Your task to perform on an android device: turn pop-ups off in chrome Image 0: 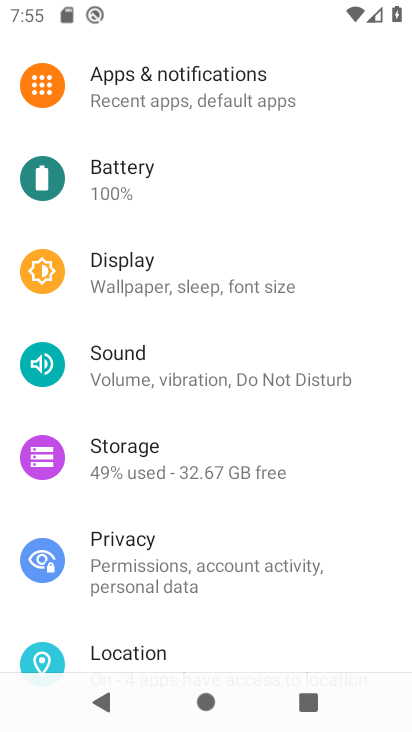
Step 0: press home button
Your task to perform on an android device: turn pop-ups off in chrome Image 1: 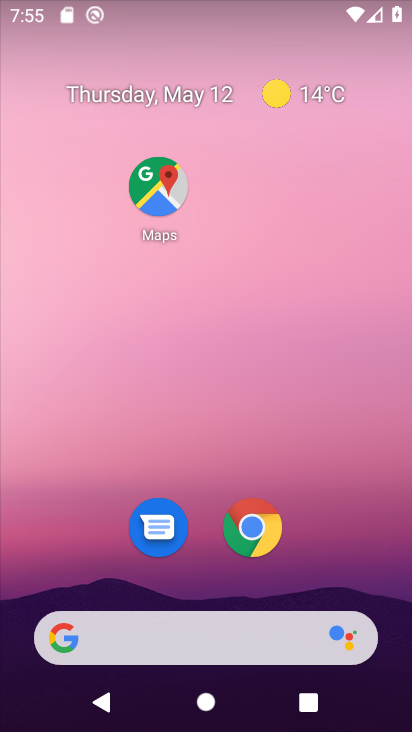
Step 1: click (268, 549)
Your task to perform on an android device: turn pop-ups off in chrome Image 2: 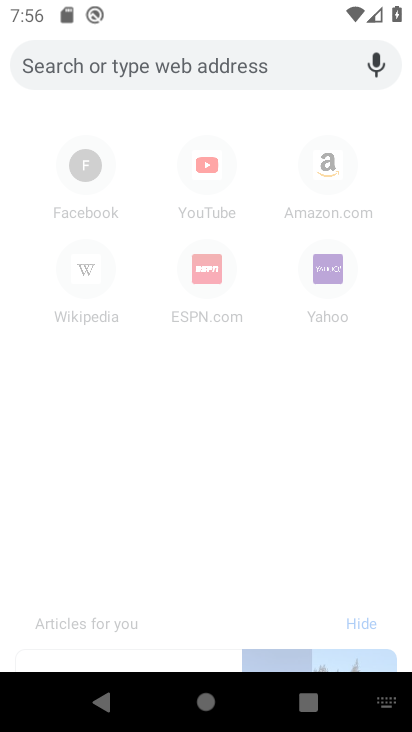
Step 2: press back button
Your task to perform on an android device: turn pop-ups off in chrome Image 3: 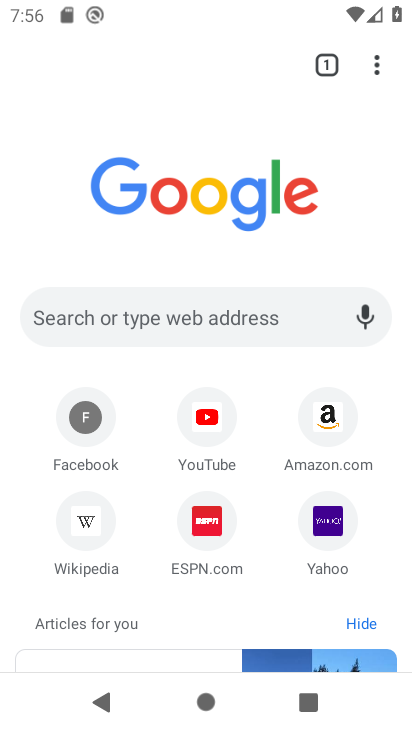
Step 3: drag from (373, 71) to (214, 551)
Your task to perform on an android device: turn pop-ups off in chrome Image 4: 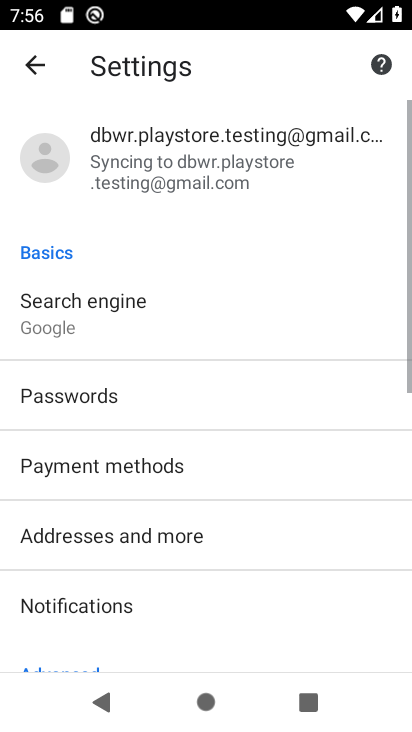
Step 4: drag from (260, 576) to (280, 249)
Your task to perform on an android device: turn pop-ups off in chrome Image 5: 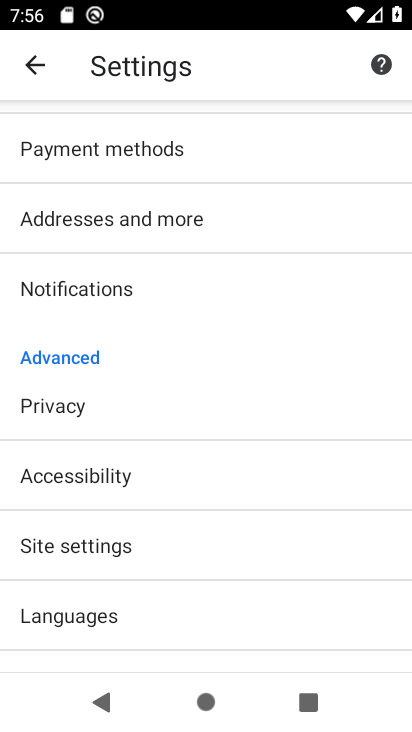
Step 5: click (142, 549)
Your task to perform on an android device: turn pop-ups off in chrome Image 6: 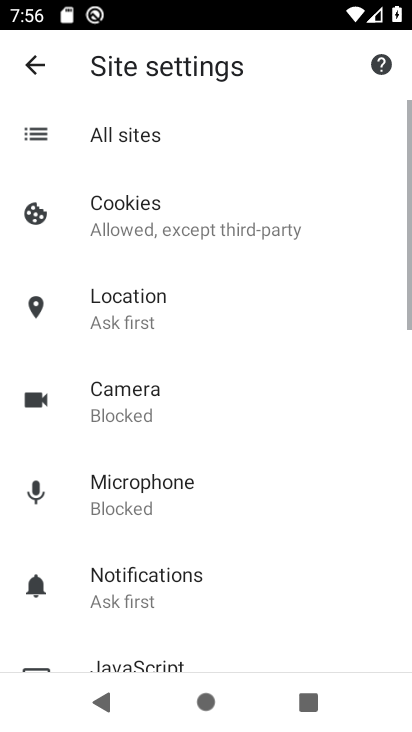
Step 6: drag from (227, 615) to (310, 262)
Your task to perform on an android device: turn pop-ups off in chrome Image 7: 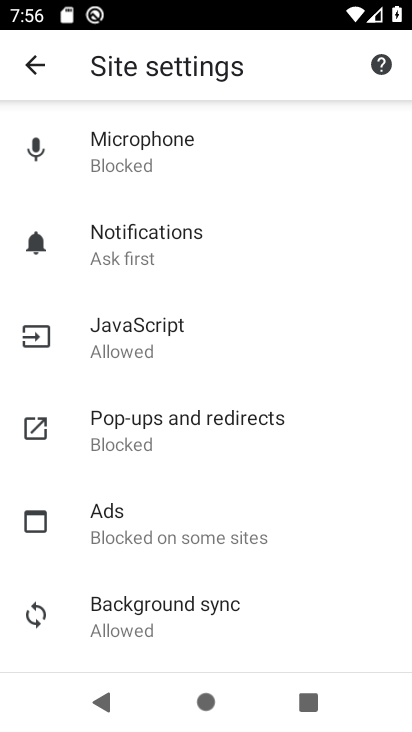
Step 7: click (336, 432)
Your task to perform on an android device: turn pop-ups off in chrome Image 8: 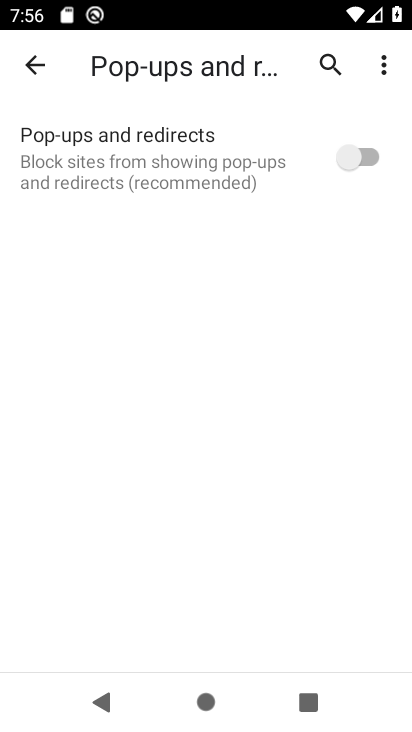
Step 8: task complete